Your task to perform on an android device: Open maps Image 0: 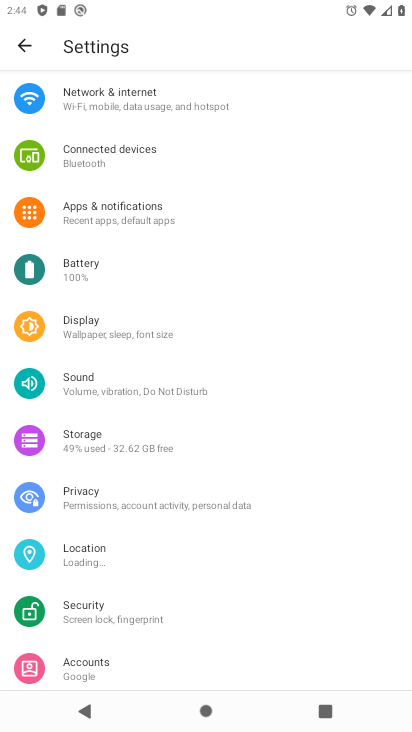
Step 0: press home button
Your task to perform on an android device: Open maps Image 1: 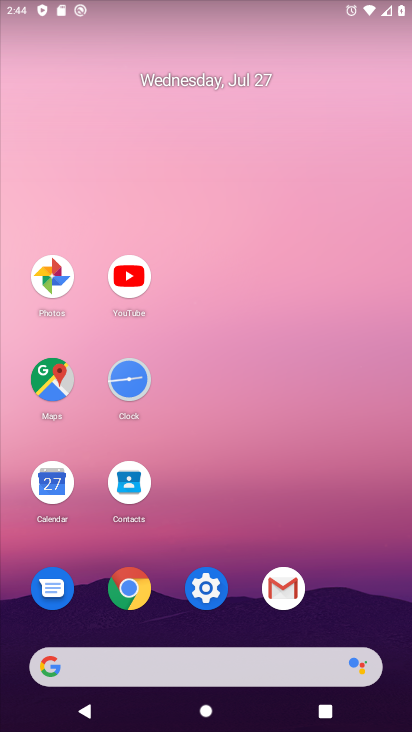
Step 1: click (49, 381)
Your task to perform on an android device: Open maps Image 2: 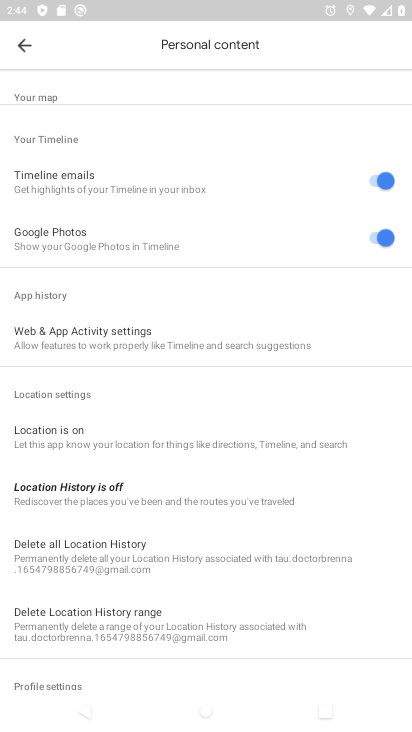
Step 2: click (17, 40)
Your task to perform on an android device: Open maps Image 3: 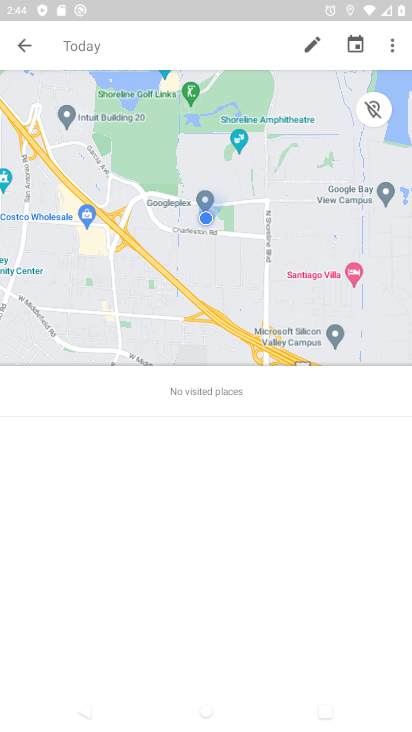
Step 3: click (27, 44)
Your task to perform on an android device: Open maps Image 4: 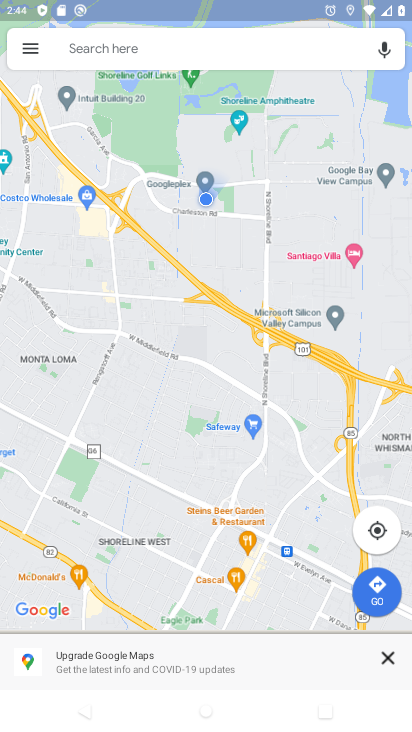
Step 4: task complete